Your task to perform on an android device: Go to internet settings Image 0: 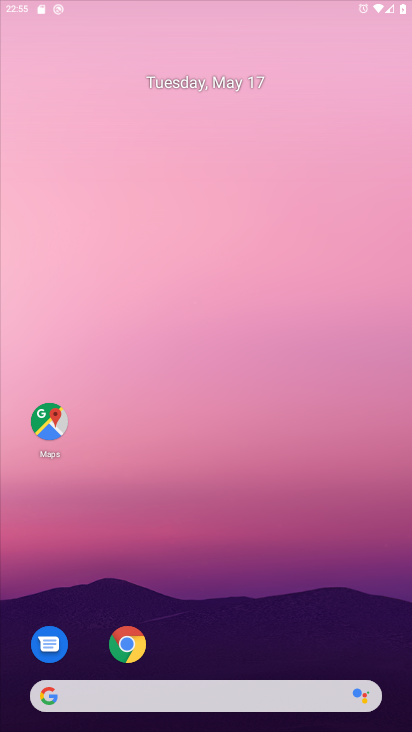
Step 0: press home button
Your task to perform on an android device: Go to internet settings Image 1: 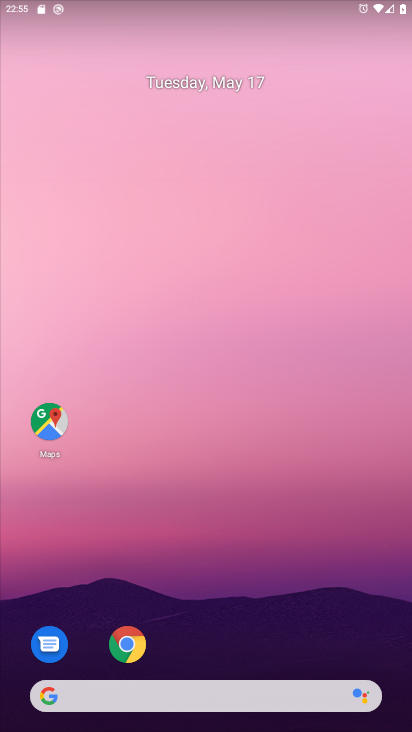
Step 1: drag from (209, 660) to (210, 240)
Your task to perform on an android device: Go to internet settings Image 2: 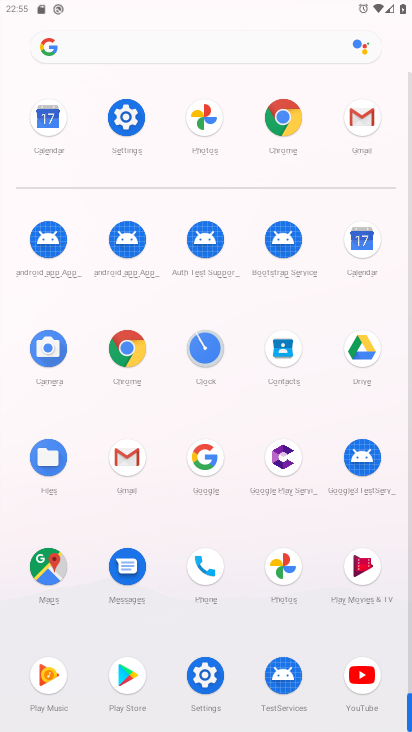
Step 2: click (124, 112)
Your task to perform on an android device: Go to internet settings Image 3: 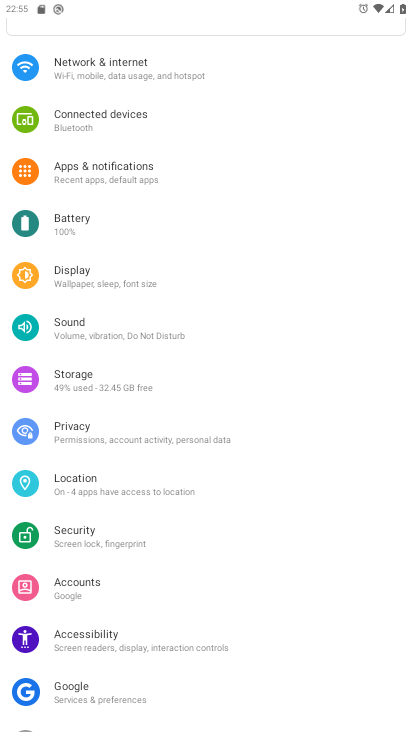
Step 3: click (165, 61)
Your task to perform on an android device: Go to internet settings Image 4: 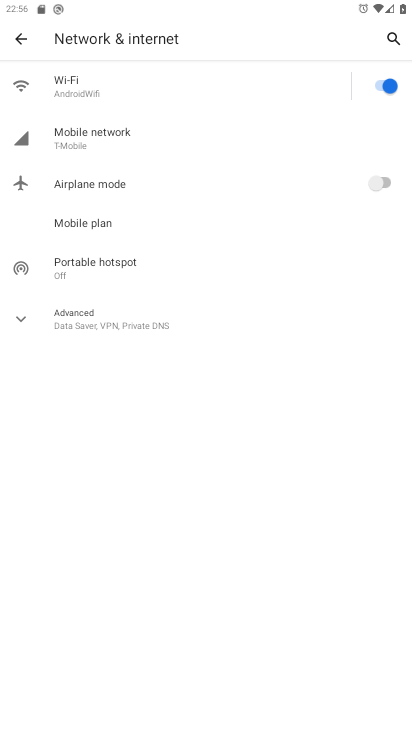
Step 4: click (55, 306)
Your task to perform on an android device: Go to internet settings Image 5: 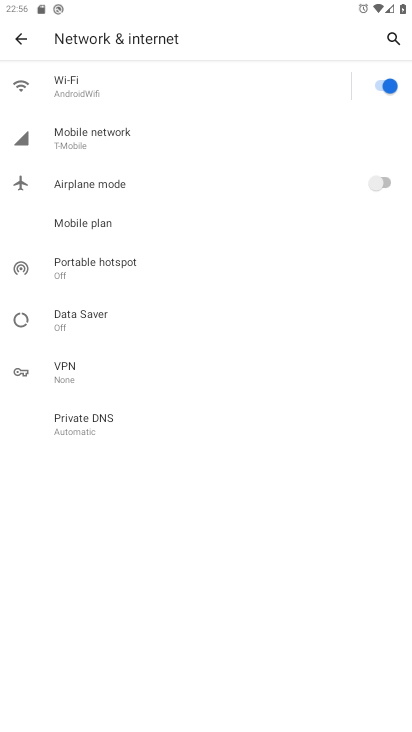
Step 5: task complete